Your task to perform on an android device: Open calendar and show me the first week of next month Image 0: 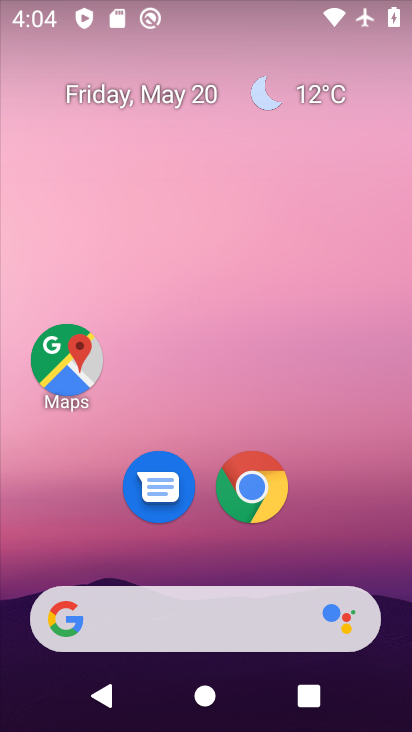
Step 0: drag from (314, 509) to (395, 29)
Your task to perform on an android device: Open calendar and show me the first week of next month Image 1: 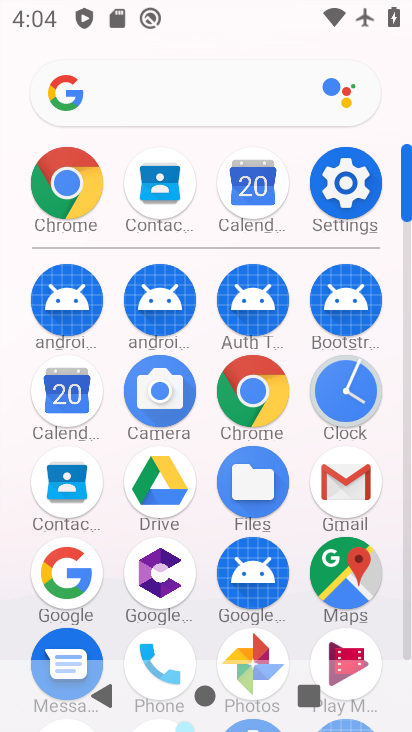
Step 1: click (255, 208)
Your task to perform on an android device: Open calendar and show me the first week of next month Image 2: 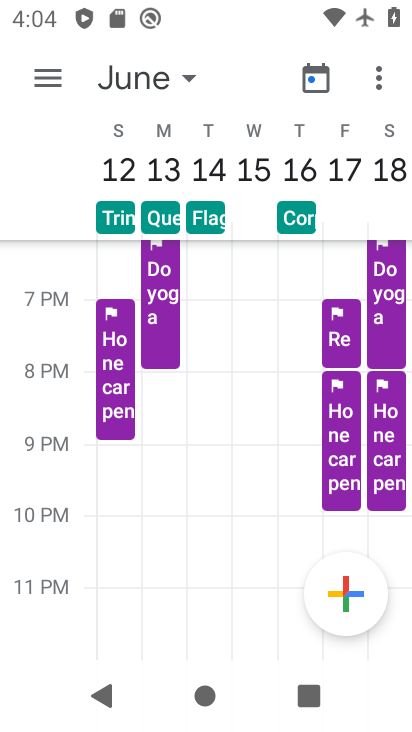
Step 2: click (144, 84)
Your task to perform on an android device: Open calendar and show me the first week of next month Image 3: 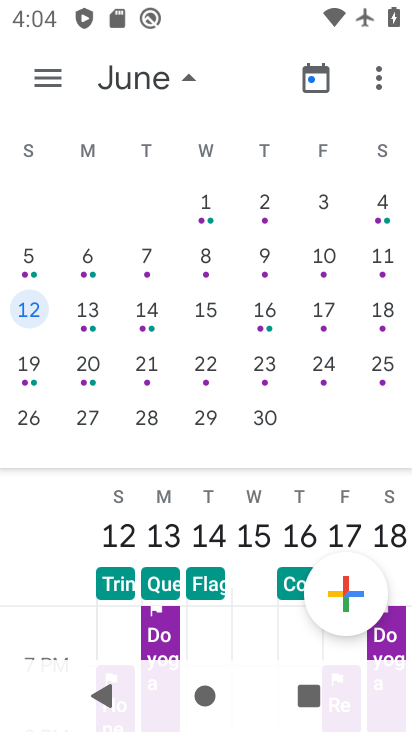
Step 3: click (30, 257)
Your task to perform on an android device: Open calendar and show me the first week of next month Image 4: 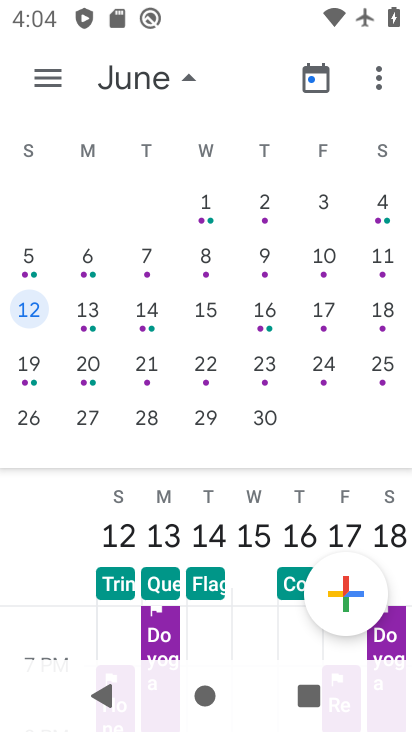
Step 4: click (34, 261)
Your task to perform on an android device: Open calendar and show me the first week of next month Image 5: 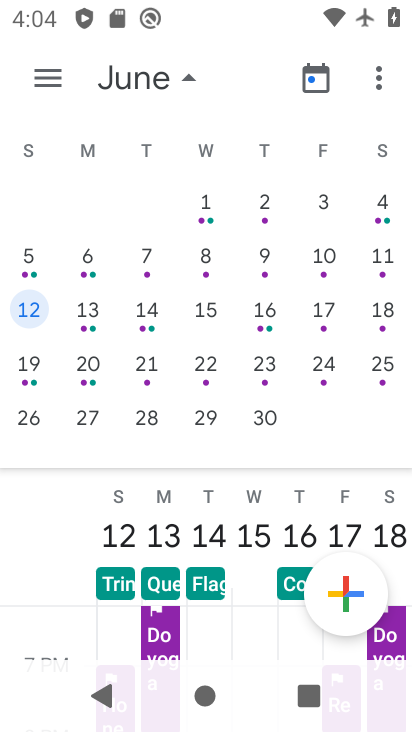
Step 5: click (35, 263)
Your task to perform on an android device: Open calendar and show me the first week of next month Image 6: 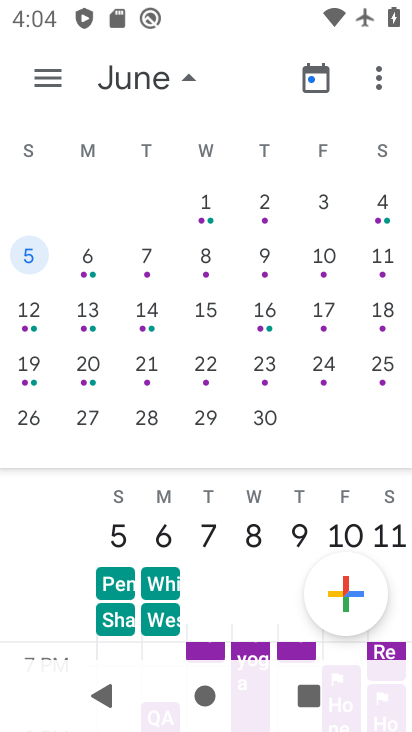
Step 6: task complete